Your task to perform on an android device: check the backup settings in the google photos Image 0: 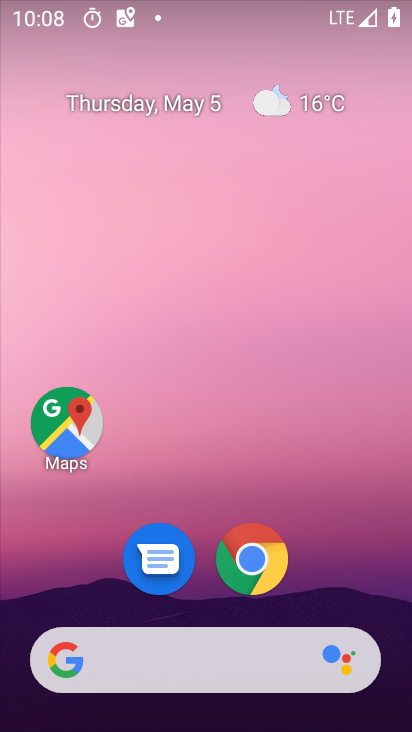
Step 0: drag from (207, 614) to (251, 4)
Your task to perform on an android device: check the backup settings in the google photos Image 1: 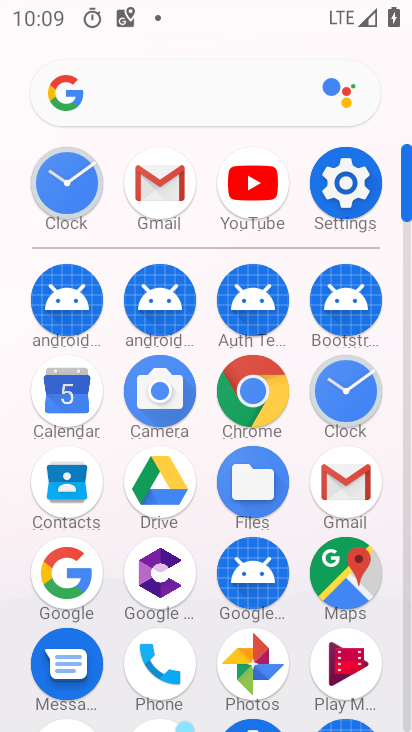
Step 1: click (252, 642)
Your task to perform on an android device: check the backup settings in the google photos Image 2: 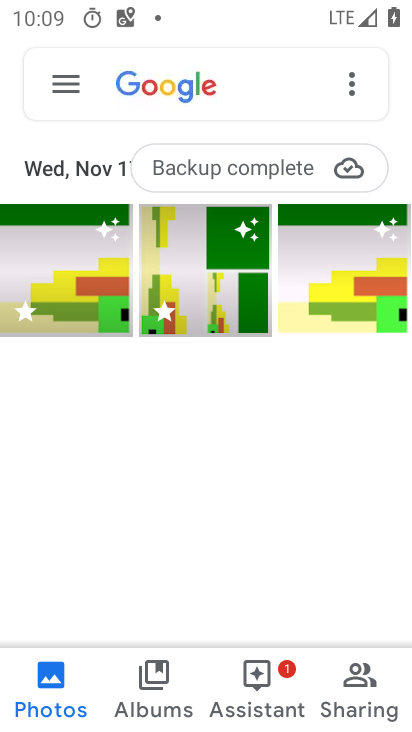
Step 2: click (74, 97)
Your task to perform on an android device: check the backup settings in the google photos Image 3: 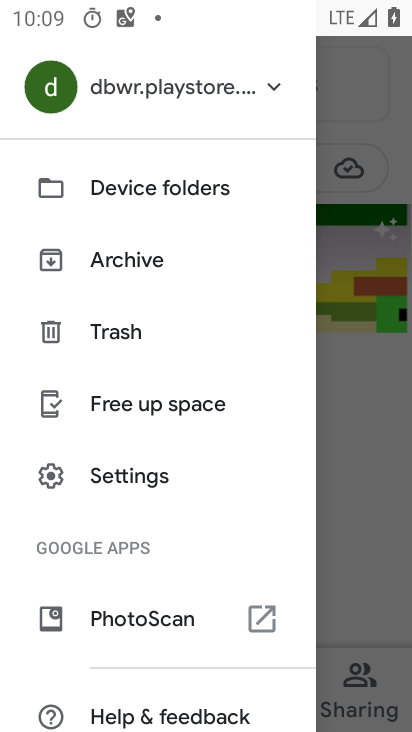
Step 3: click (151, 496)
Your task to perform on an android device: check the backup settings in the google photos Image 4: 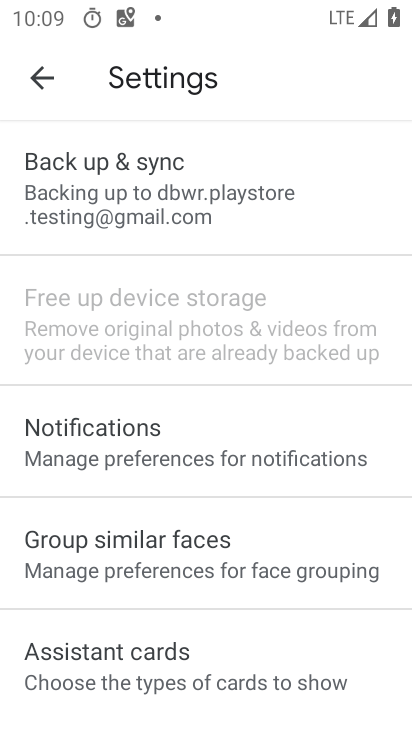
Step 4: click (206, 211)
Your task to perform on an android device: check the backup settings in the google photos Image 5: 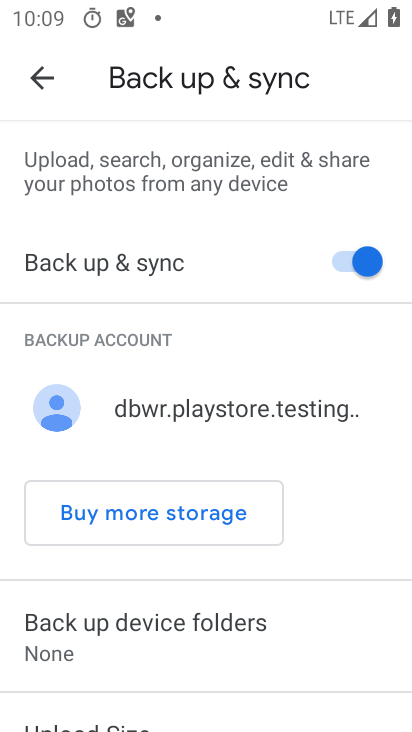
Step 5: task complete